Your task to perform on an android device: change the upload size in google photos Image 0: 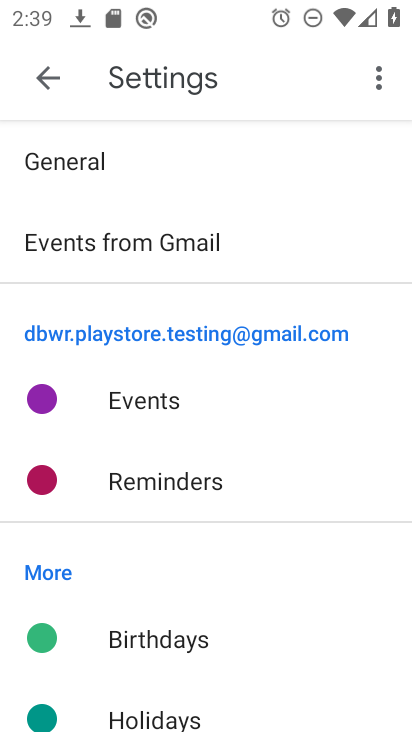
Step 0: press home button
Your task to perform on an android device: change the upload size in google photos Image 1: 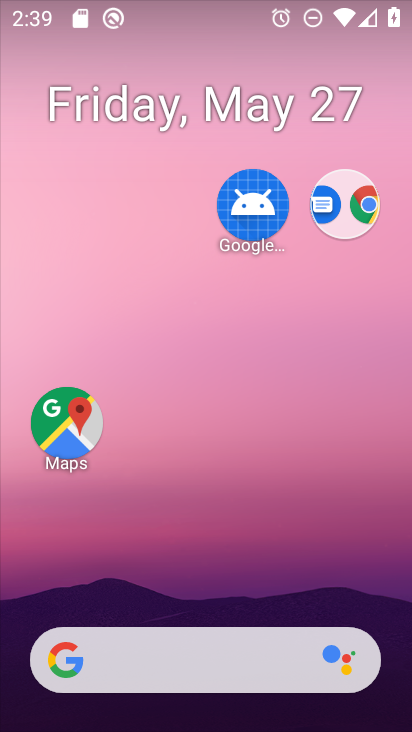
Step 1: drag from (207, 655) to (201, 283)
Your task to perform on an android device: change the upload size in google photos Image 2: 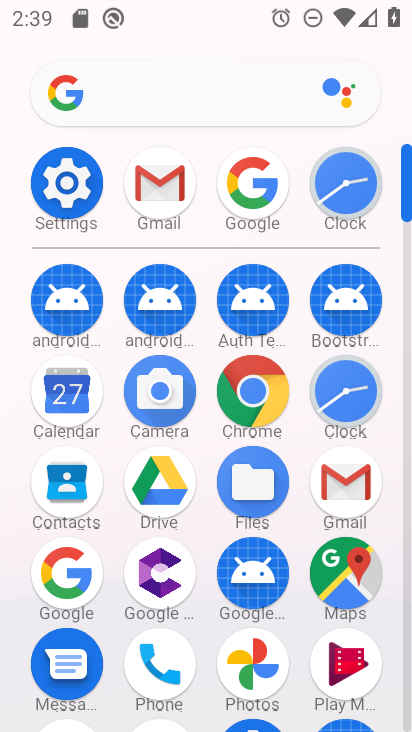
Step 2: drag from (201, 446) to (220, 262)
Your task to perform on an android device: change the upload size in google photos Image 3: 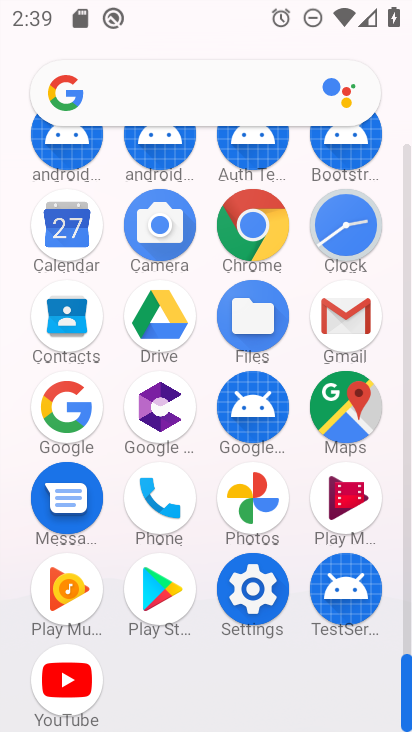
Step 3: click (238, 509)
Your task to perform on an android device: change the upload size in google photos Image 4: 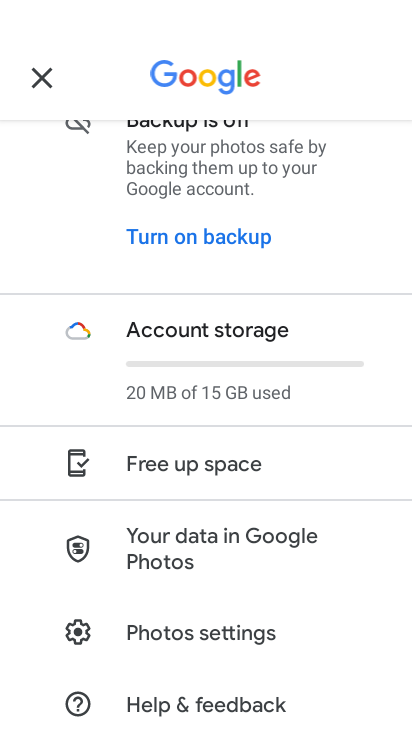
Step 4: drag from (195, 293) to (170, 566)
Your task to perform on an android device: change the upload size in google photos Image 5: 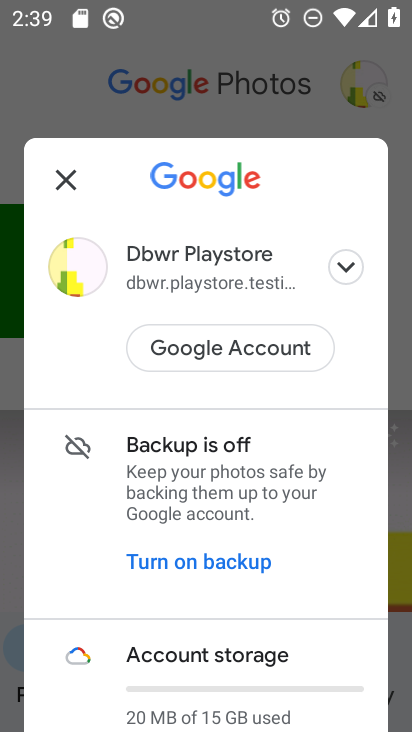
Step 5: drag from (221, 509) to (248, 207)
Your task to perform on an android device: change the upload size in google photos Image 6: 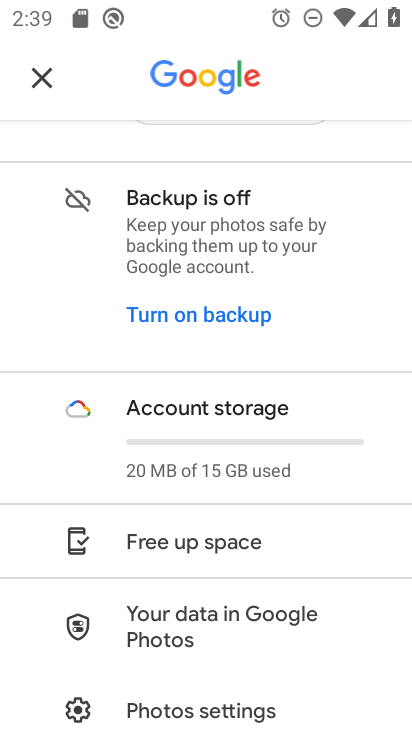
Step 6: drag from (199, 500) to (233, 266)
Your task to perform on an android device: change the upload size in google photos Image 7: 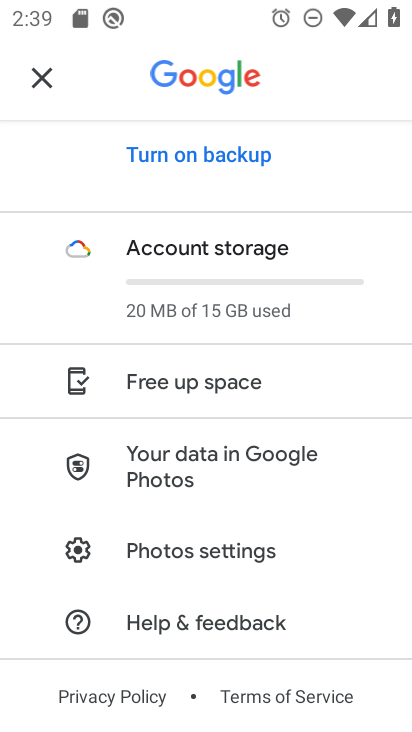
Step 7: drag from (172, 511) to (187, 415)
Your task to perform on an android device: change the upload size in google photos Image 8: 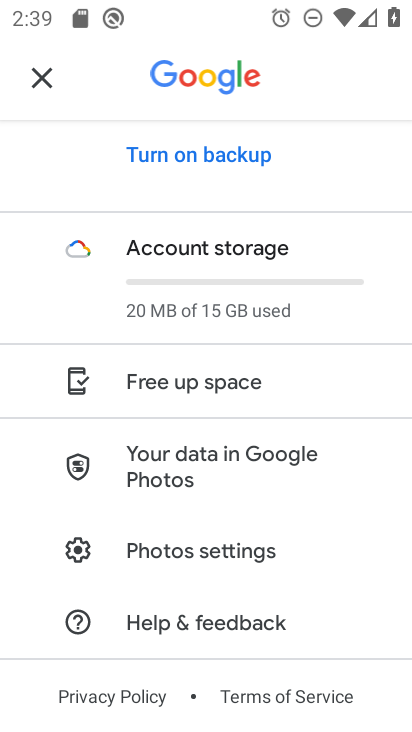
Step 8: click (187, 548)
Your task to perform on an android device: change the upload size in google photos Image 9: 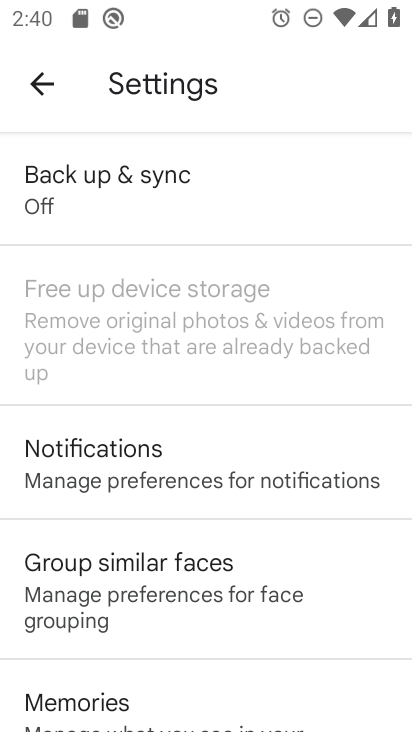
Step 9: click (206, 185)
Your task to perform on an android device: change the upload size in google photos Image 10: 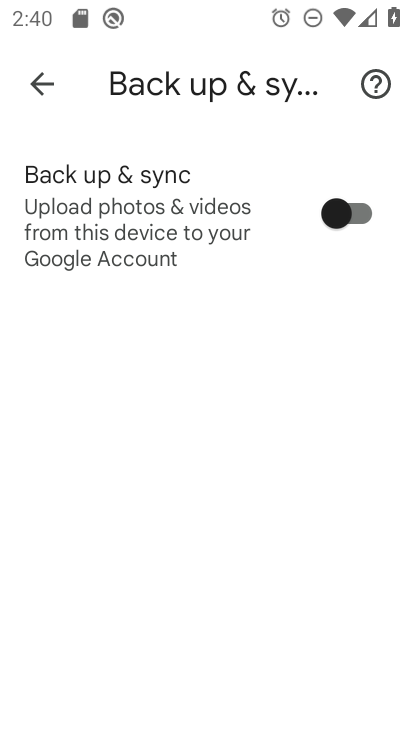
Step 10: task complete